Your task to perform on an android device: Open Google Chrome Image 0: 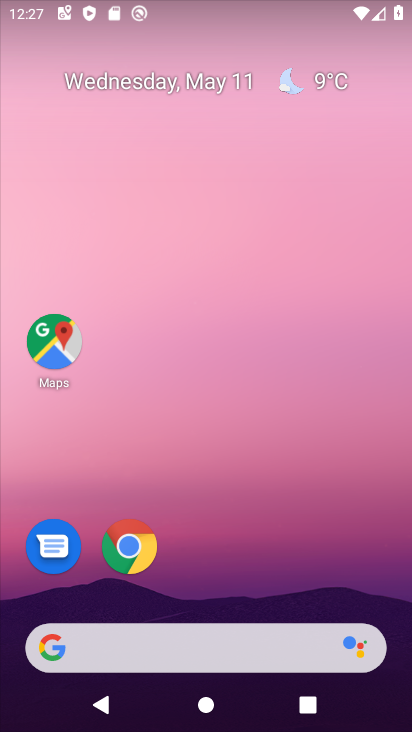
Step 0: drag from (307, 659) to (260, 77)
Your task to perform on an android device: Open Google Chrome Image 1: 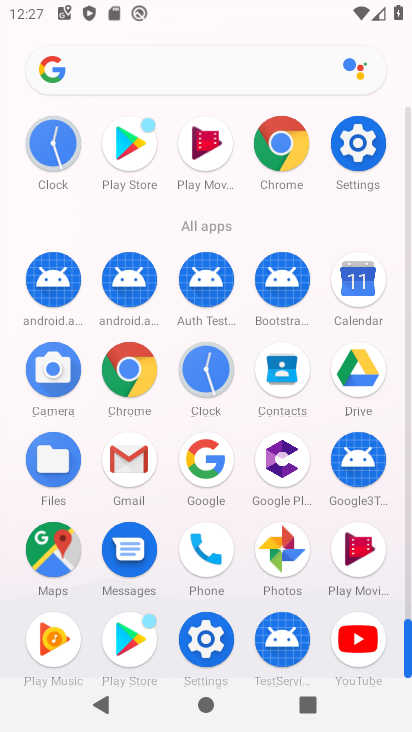
Step 1: click (142, 364)
Your task to perform on an android device: Open Google Chrome Image 2: 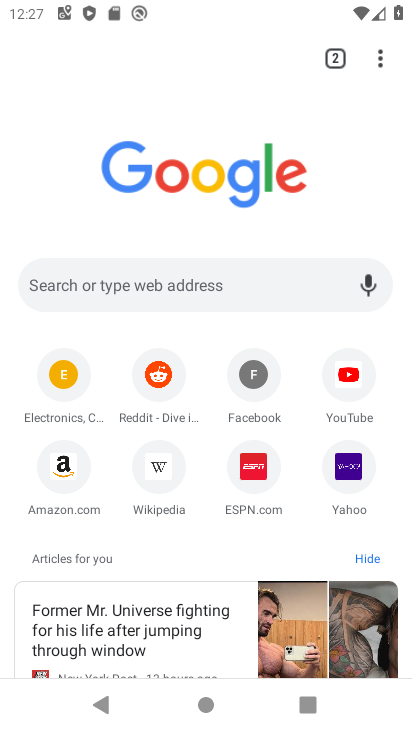
Step 2: task complete